Your task to perform on an android device: Go to eBay Image 0: 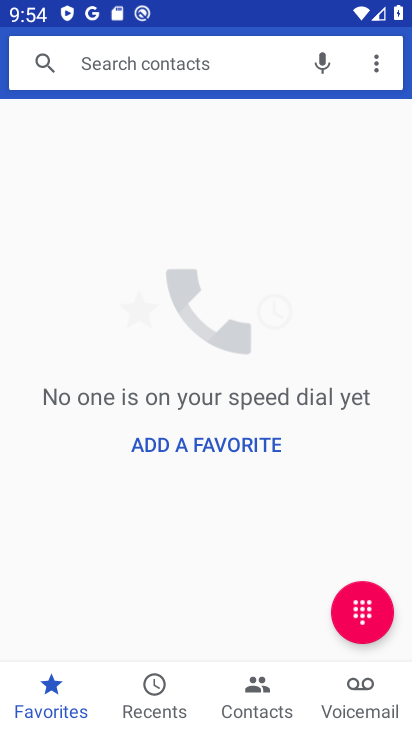
Step 0: press back button
Your task to perform on an android device: Go to eBay Image 1: 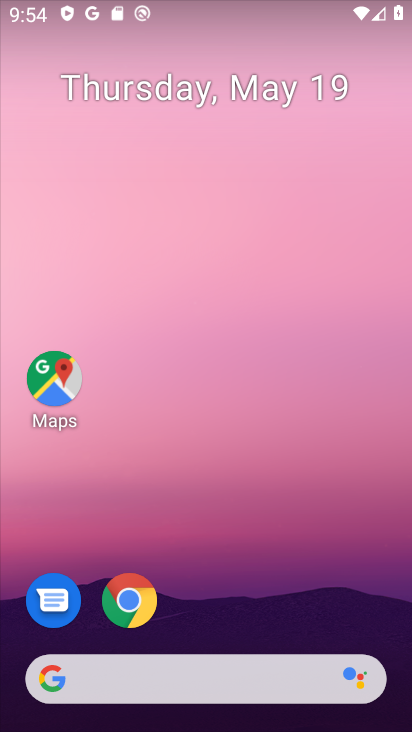
Step 1: drag from (275, 576) to (201, 37)
Your task to perform on an android device: Go to eBay Image 2: 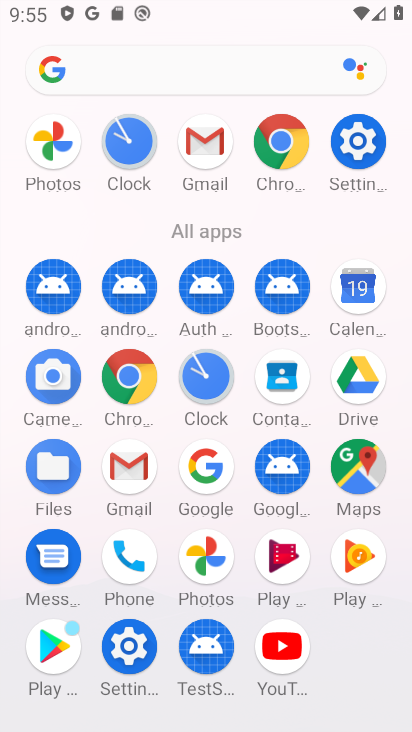
Step 2: click (128, 377)
Your task to perform on an android device: Go to eBay Image 3: 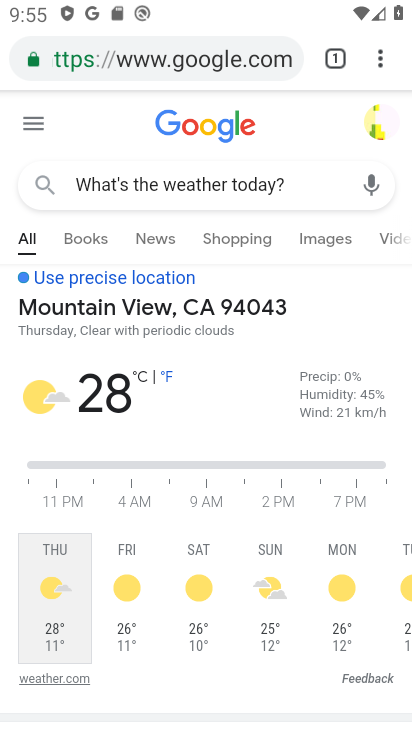
Step 3: click (166, 59)
Your task to perform on an android device: Go to eBay Image 4: 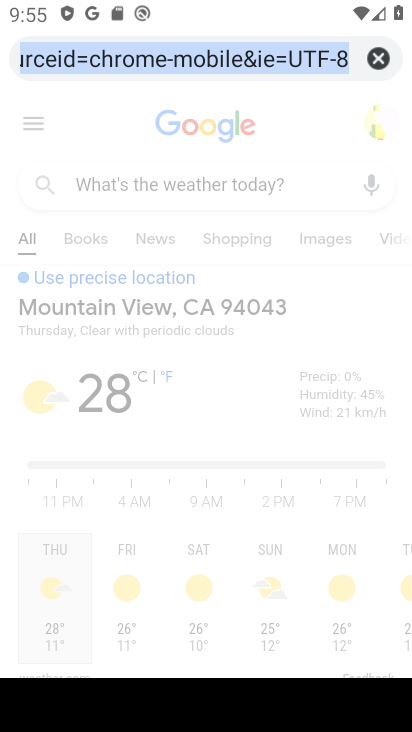
Step 4: click (372, 57)
Your task to perform on an android device: Go to eBay Image 5: 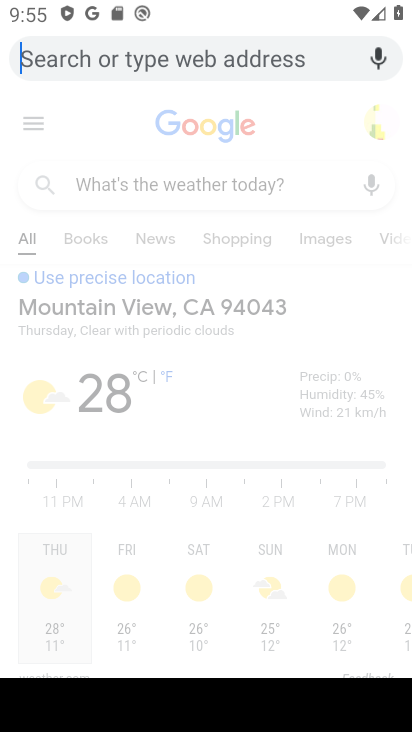
Step 5: type "eBay"
Your task to perform on an android device: Go to eBay Image 6: 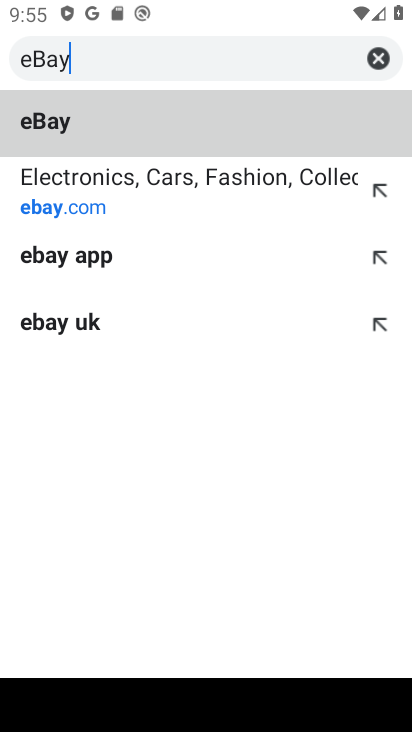
Step 6: click (121, 183)
Your task to perform on an android device: Go to eBay Image 7: 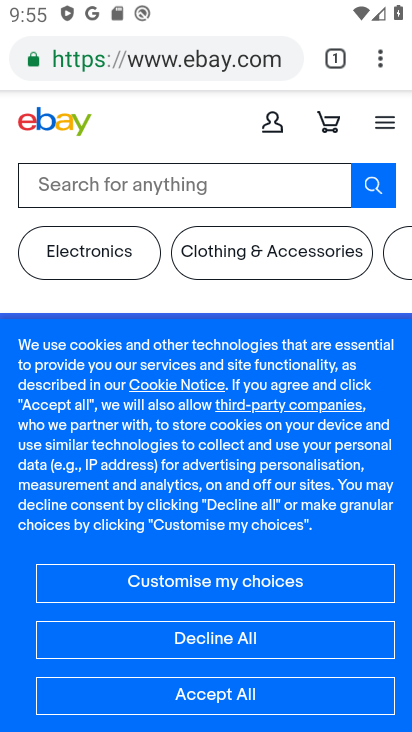
Step 7: task complete